Your task to perform on an android device: Open the calendar app, open the side menu, and click the "Day" option Image 0: 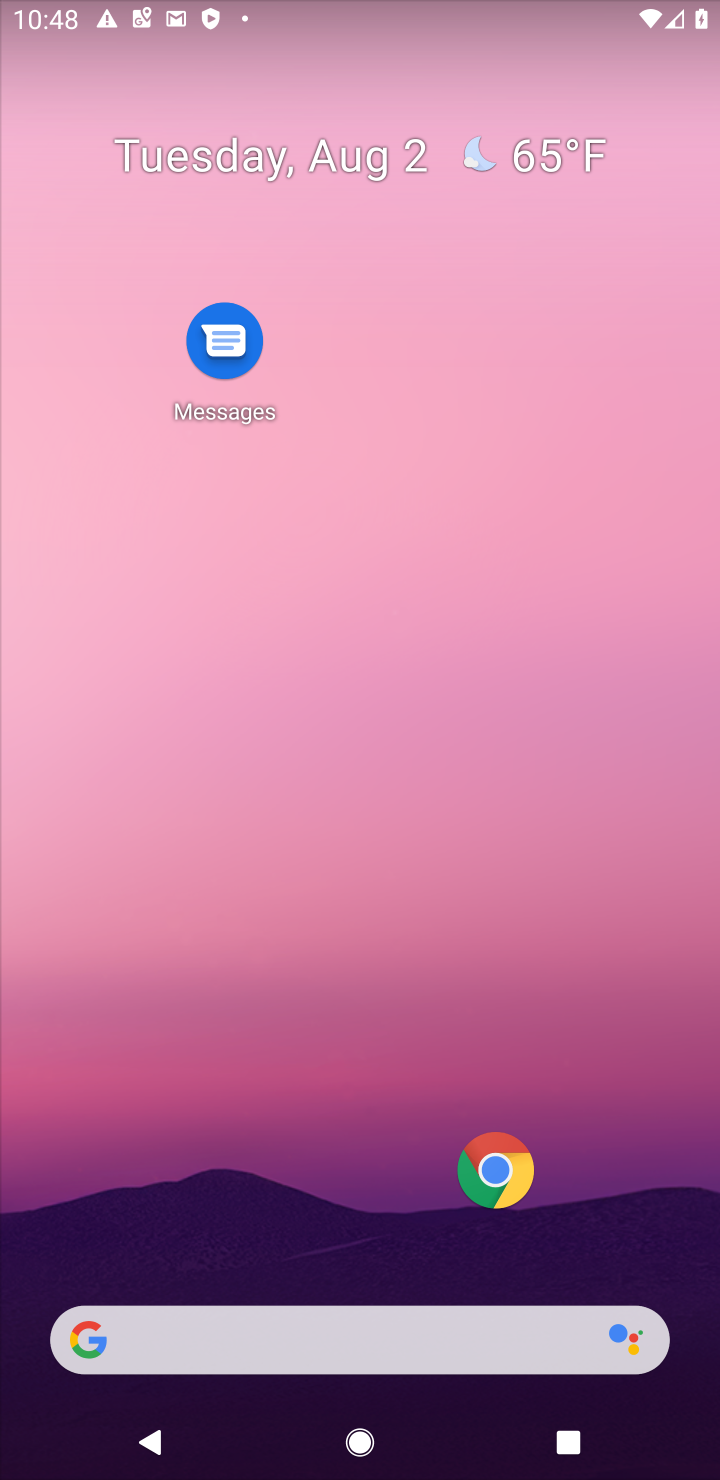
Step 0: drag from (322, 1215) to (198, 4)
Your task to perform on an android device: Open the calendar app, open the side menu, and click the "Day" option Image 1: 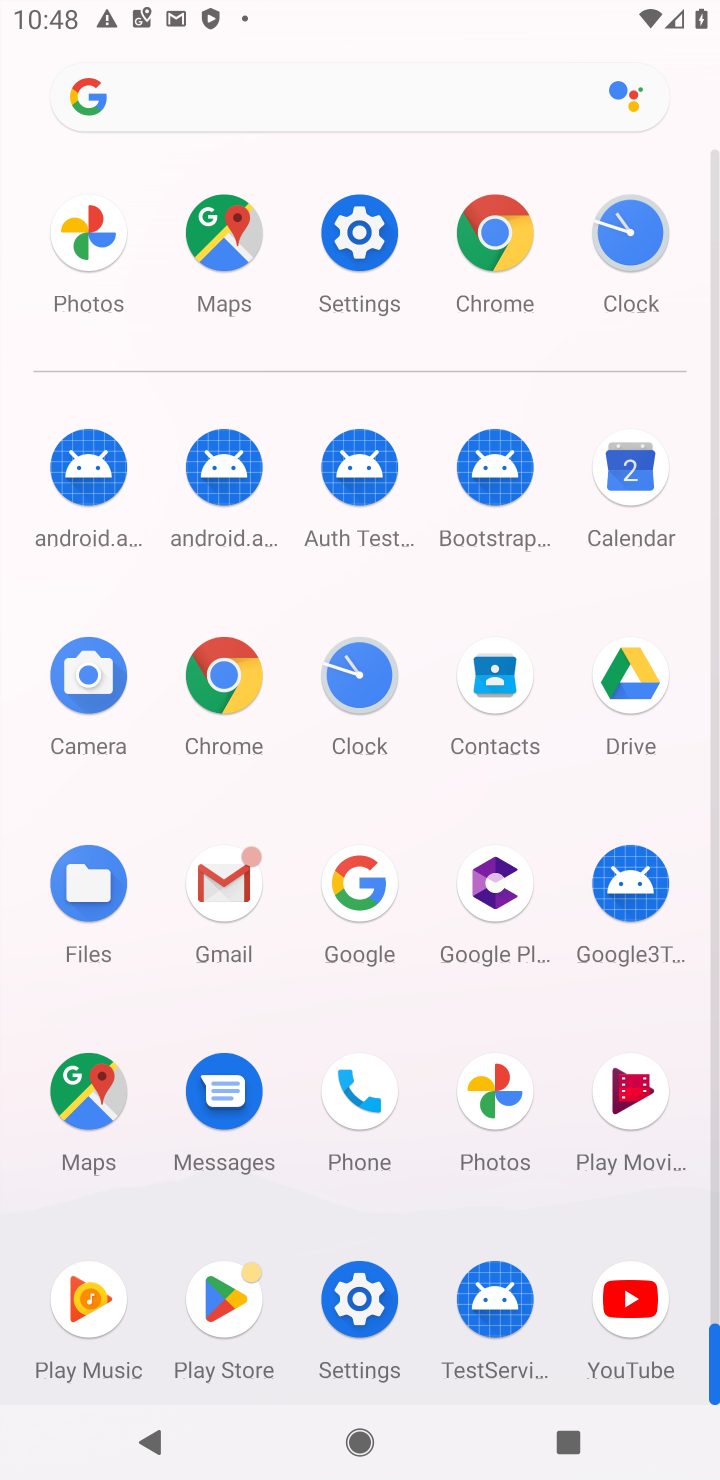
Step 1: drag from (391, 1163) to (356, 602)
Your task to perform on an android device: Open the calendar app, open the side menu, and click the "Day" option Image 2: 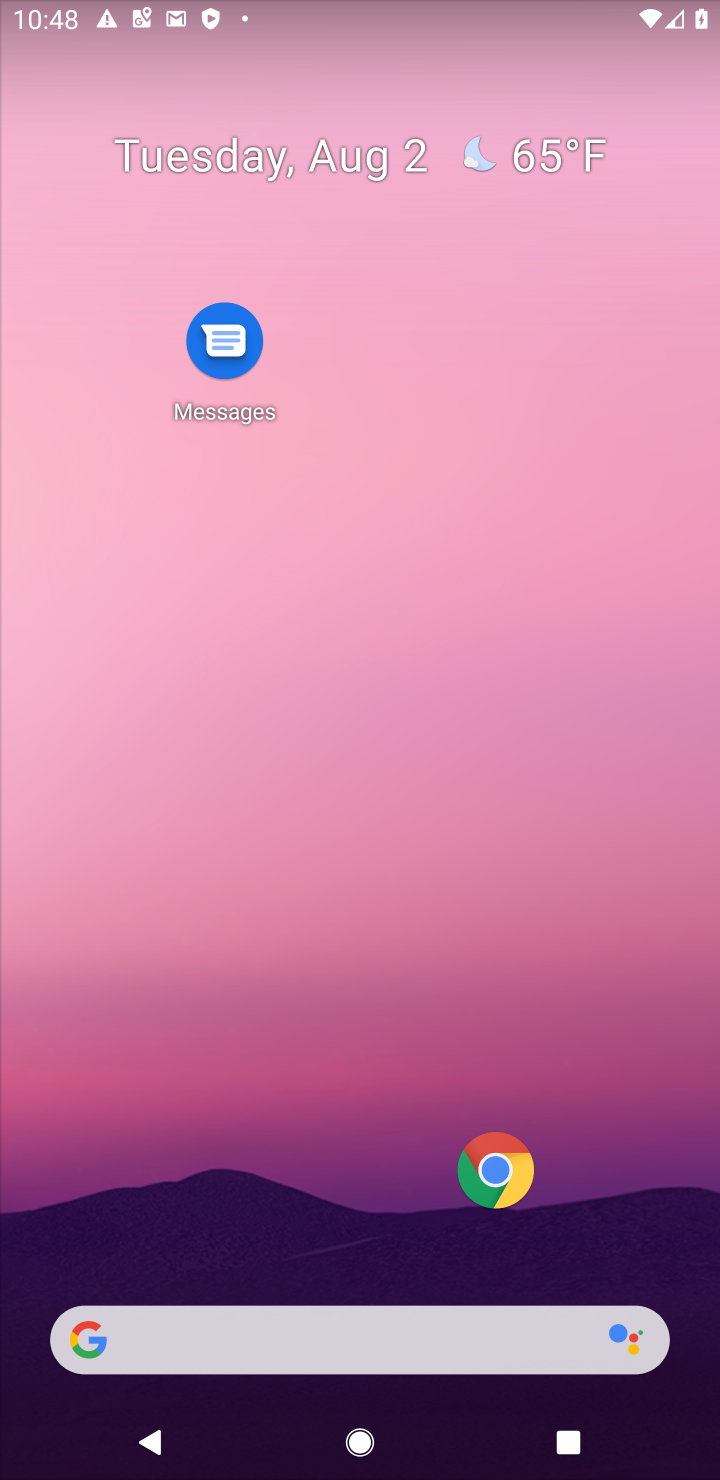
Step 2: drag from (352, 1195) to (477, 361)
Your task to perform on an android device: Open the calendar app, open the side menu, and click the "Day" option Image 3: 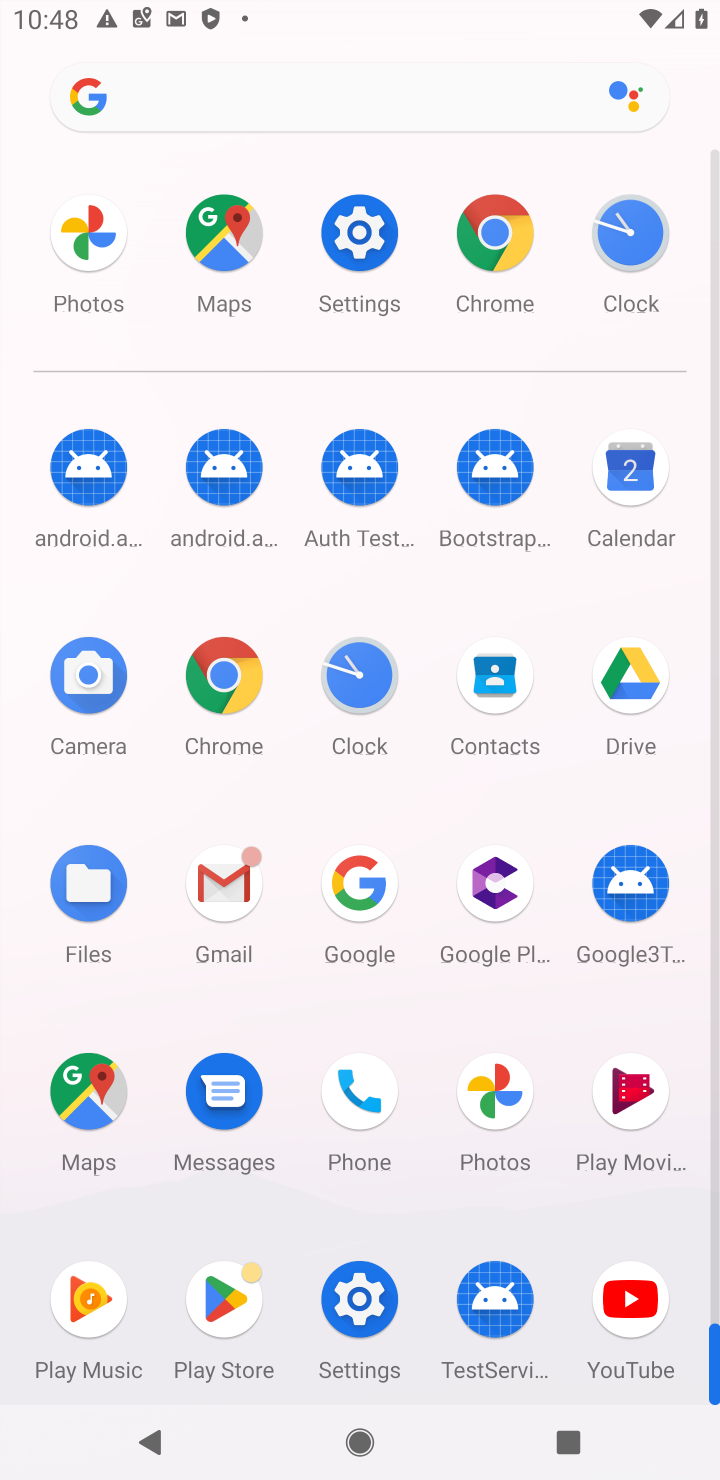
Step 3: click (620, 473)
Your task to perform on an android device: Open the calendar app, open the side menu, and click the "Day" option Image 4: 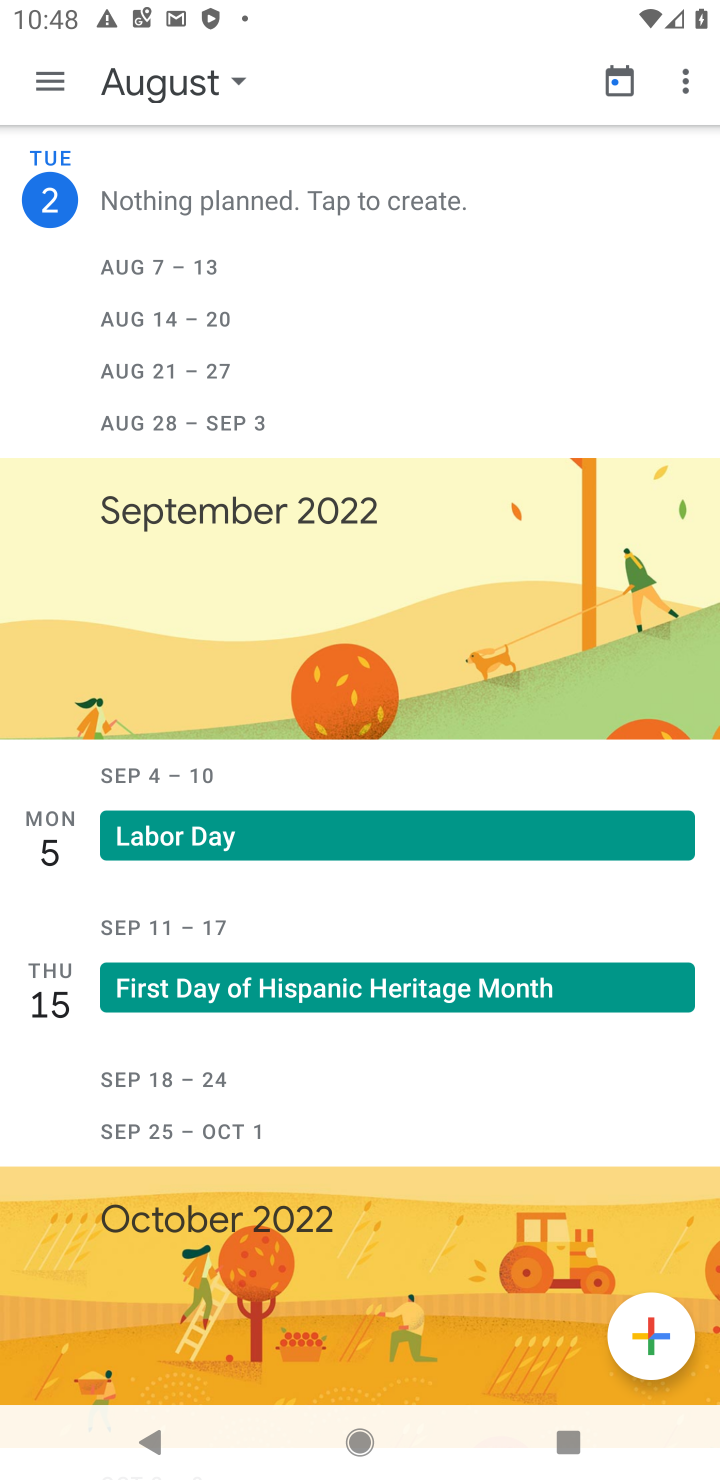
Step 4: click (68, 68)
Your task to perform on an android device: Open the calendar app, open the side menu, and click the "Day" option Image 5: 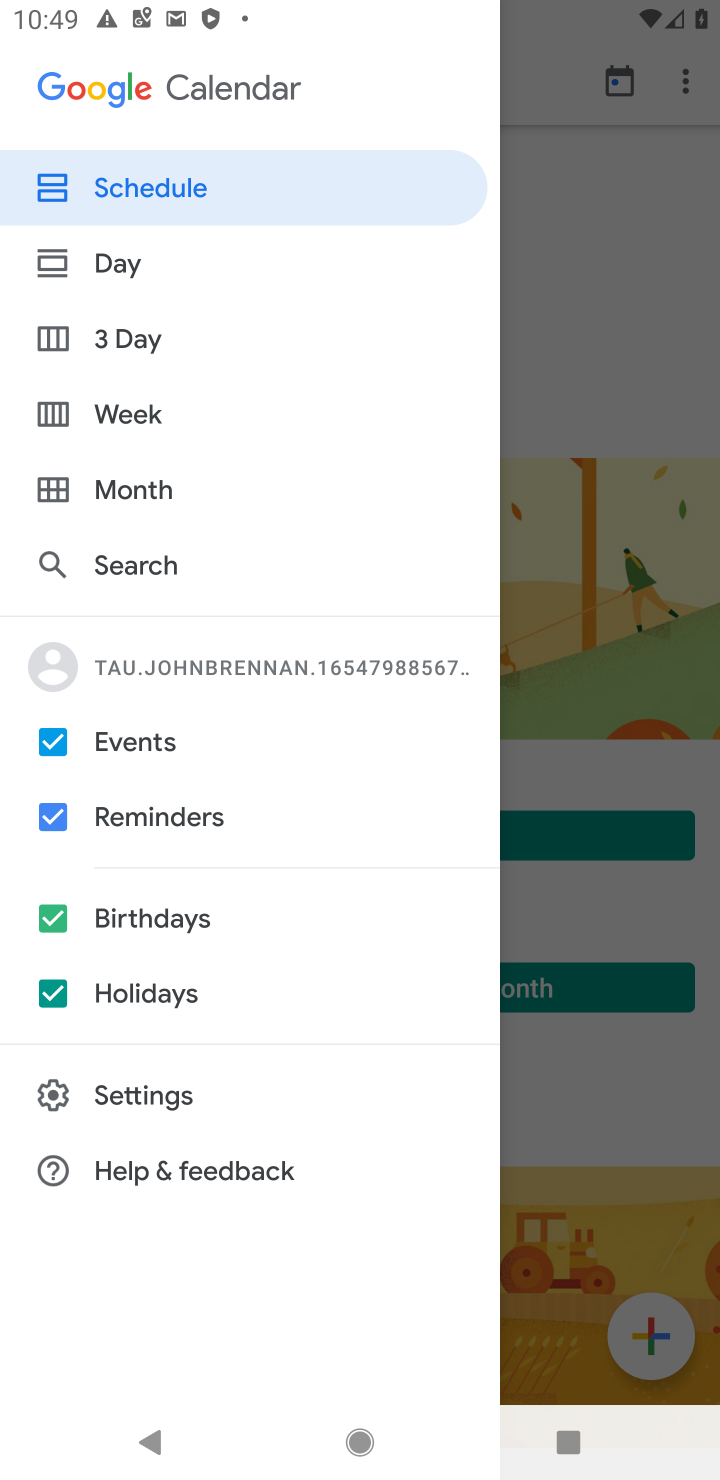
Step 5: click (114, 265)
Your task to perform on an android device: Open the calendar app, open the side menu, and click the "Day" option Image 6: 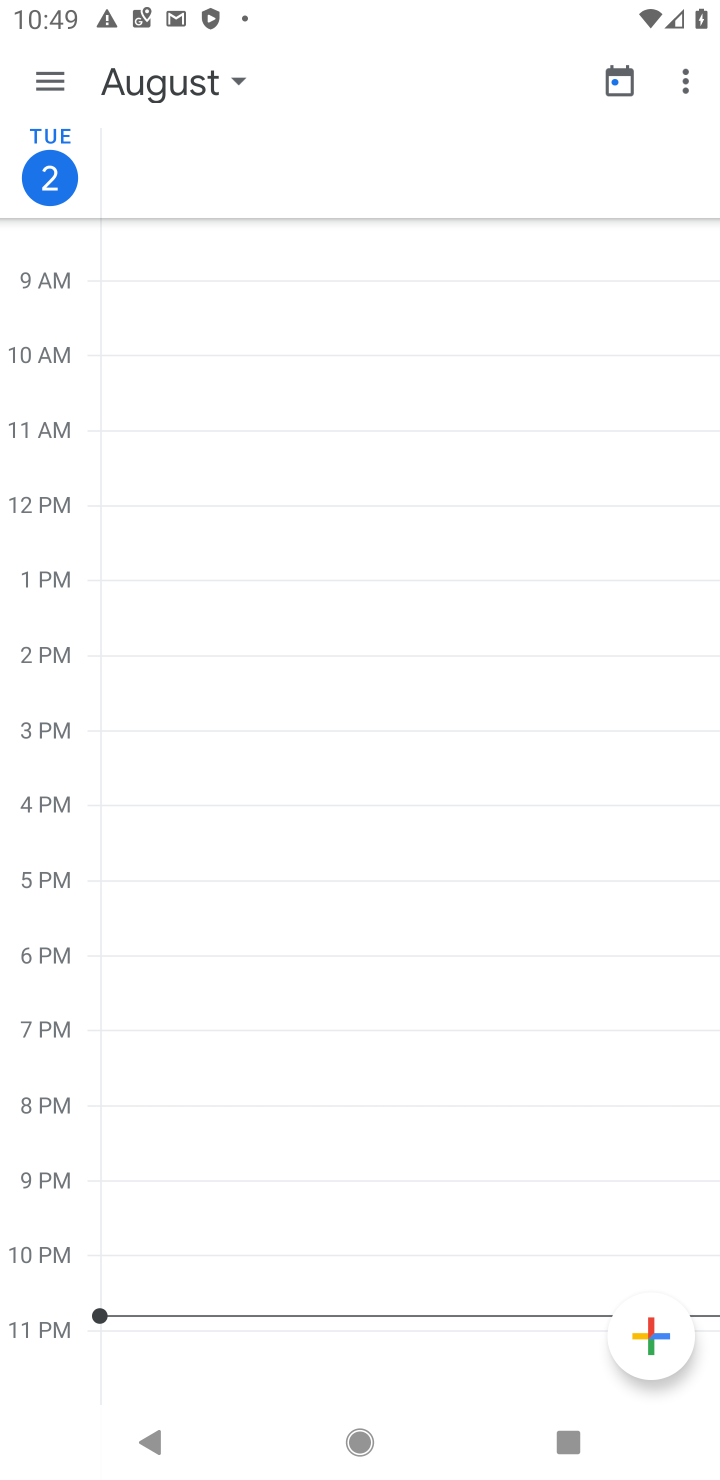
Step 6: click (57, 95)
Your task to perform on an android device: Open the calendar app, open the side menu, and click the "Day" option Image 7: 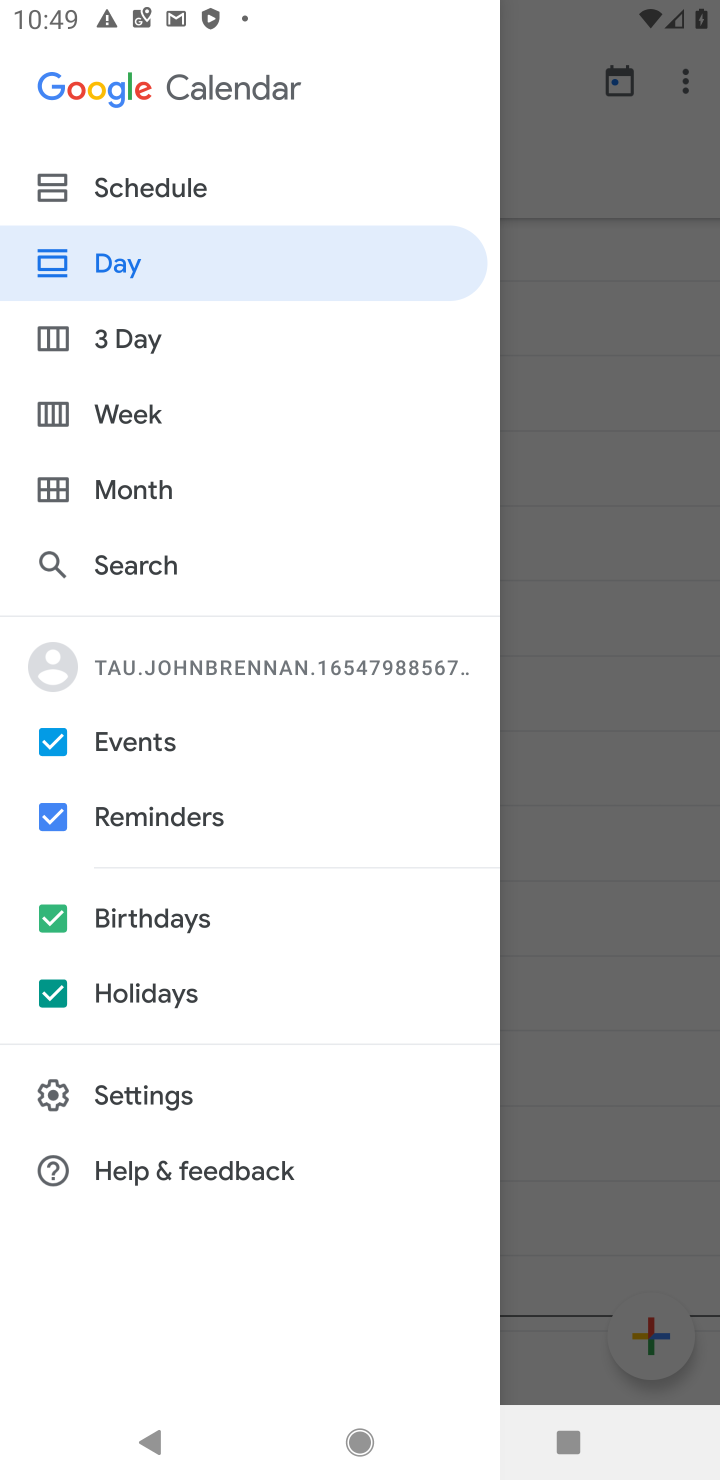
Step 7: task complete